Your task to perform on an android device: Go to Wikipedia Image 0: 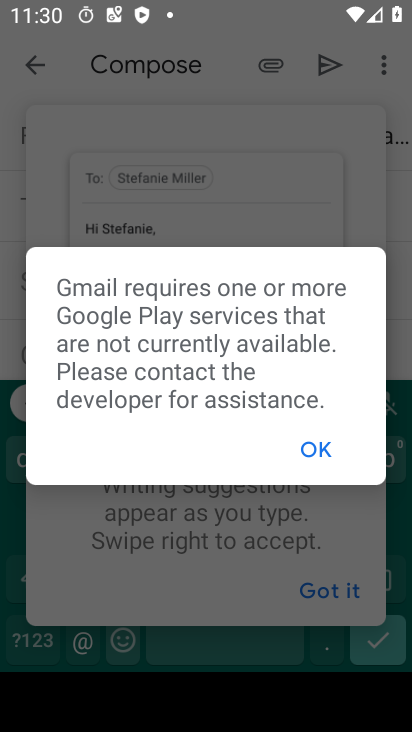
Step 0: press home button
Your task to perform on an android device: Go to Wikipedia Image 1: 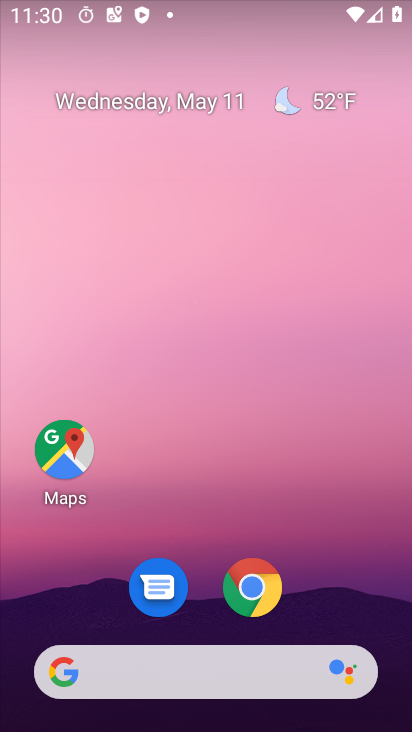
Step 1: drag from (192, 696) to (229, 211)
Your task to perform on an android device: Go to Wikipedia Image 2: 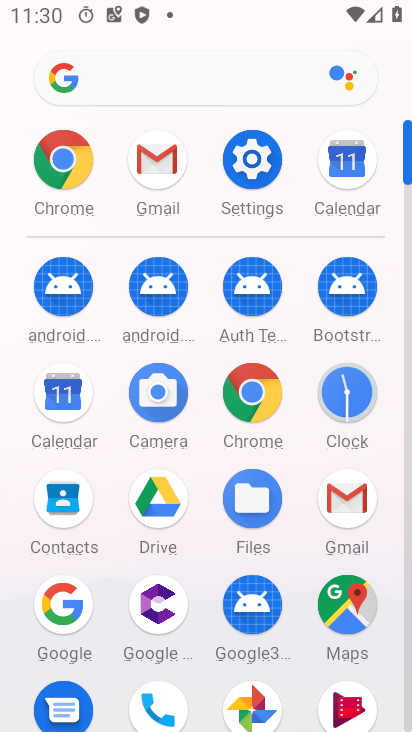
Step 2: click (74, 173)
Your task to perform on an android device: Go to Wikipedia Image 3: 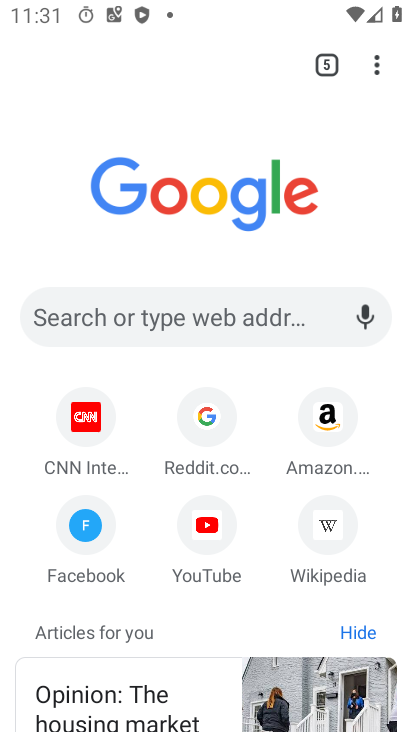
Step 3: click (145, 313)
Your task to perform on an android device: Go to Wikipedia Image 4: 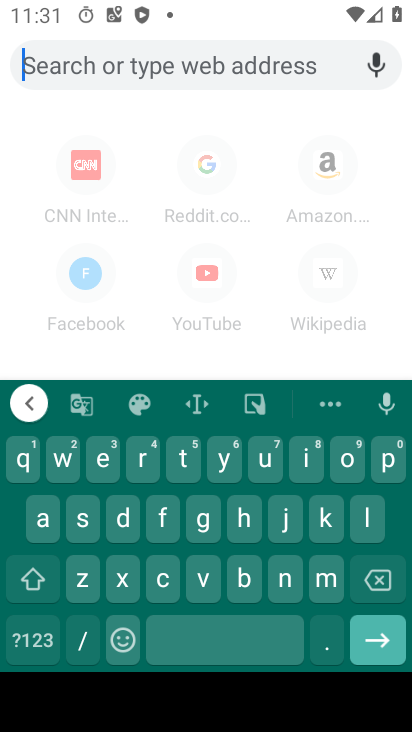
Step 4: click (60, 455)
Your task to perform on an android device: Go to Wikipedia Image 5: 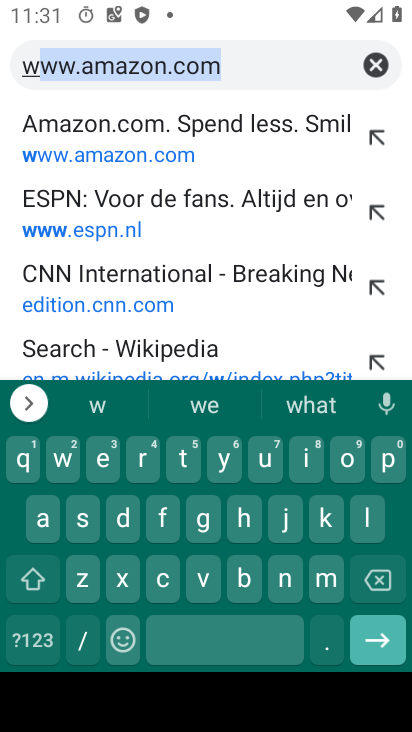
Step 5: click (200, 351)
Your task to perform on an android device: Go to Wikipedia Image 6: 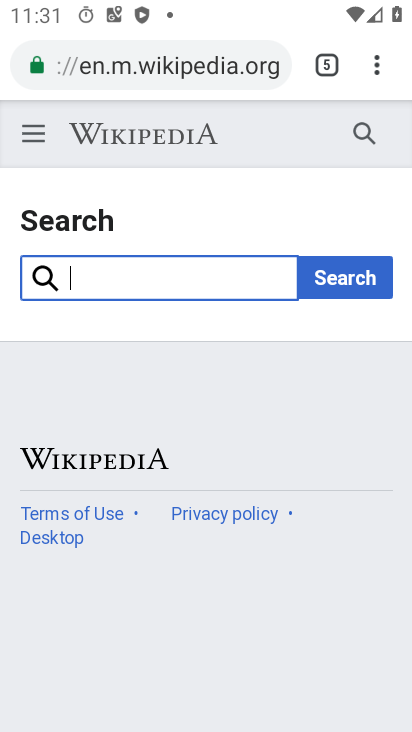
Step 6: task complete